Your task to perform on an android device: add a contact in the contacts app Image 0: 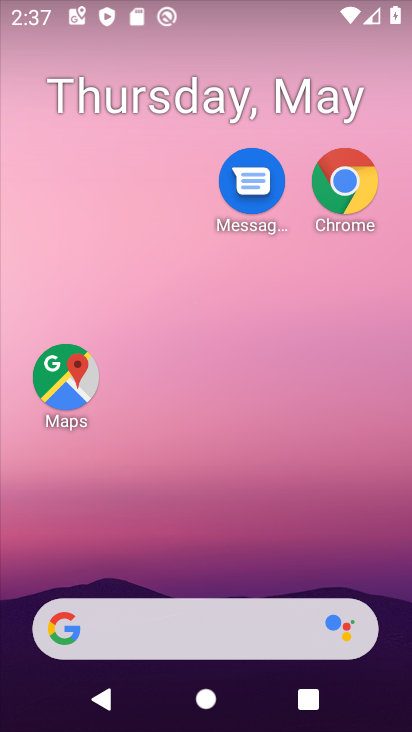
Step 0: drag from (284, 547) to (355, 16)
Your task to perform on an android device: add a contact in the contacts app Image 1: 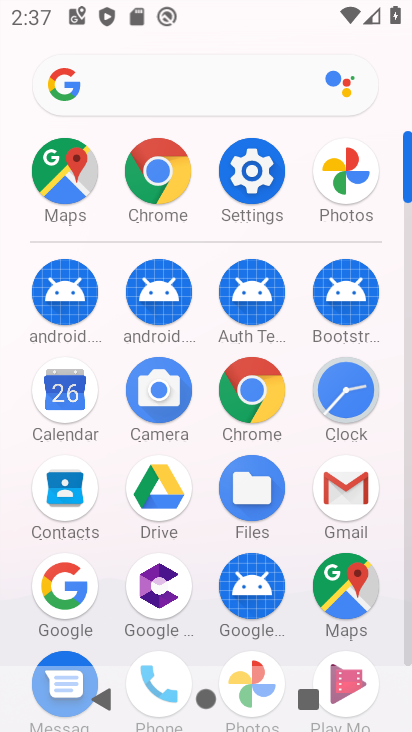
Step 1: click (358, 398)
Your task to perform on an android device: add a contact in the contacts app Image 2: 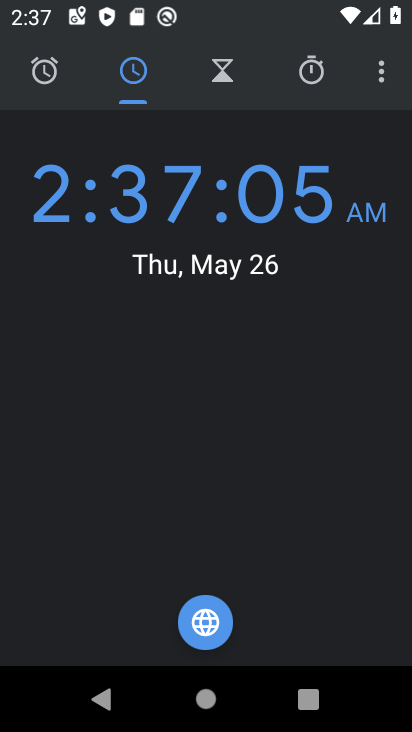
Step 2: press back button
Your task to perform on an android device: add a contact in the contacts app Image 3: 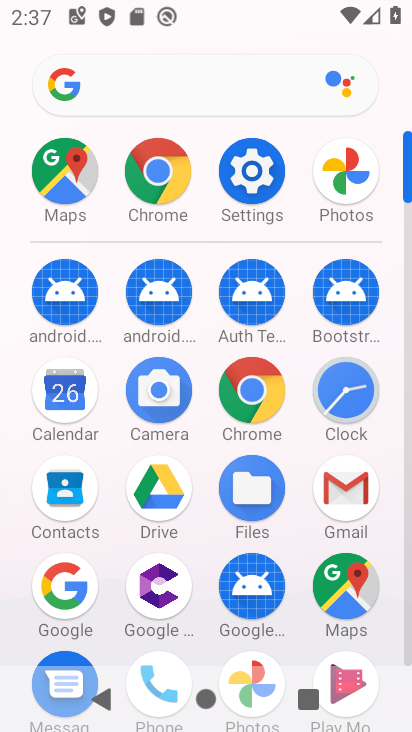
Step 3: click (70, 481)
Your task to perform on an android device: add a contact in the contacts app Image 4: 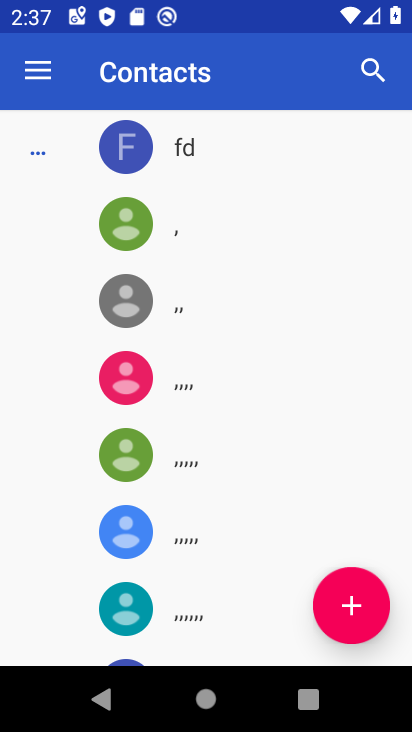
Step 4: click (374, 601)
Your task to perform on an android device: add a contact in the contacts app Image 5: 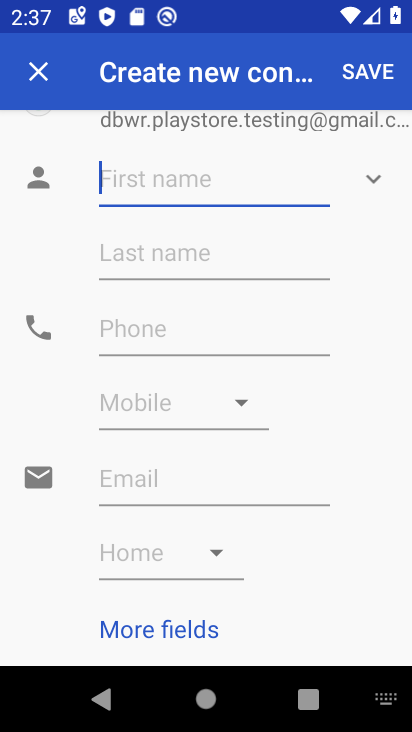
Step 5: type ""
Your task to perform on an android device: add a contact in the contacts app Image 6: 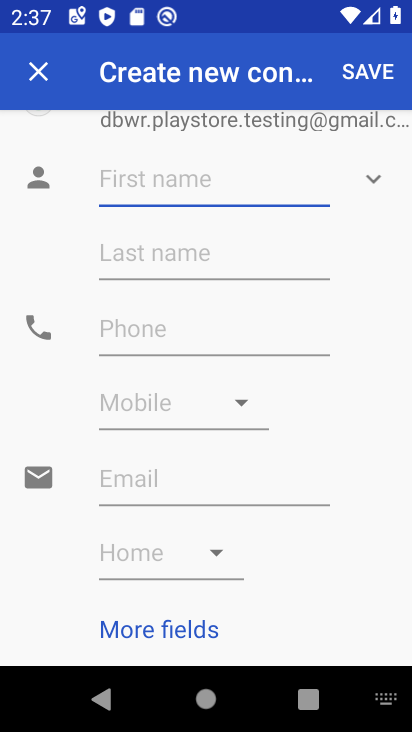
Step 6: type "uijjhhkgig"
Your task to perform on an android device: add a contact in the contacts app Image 7: 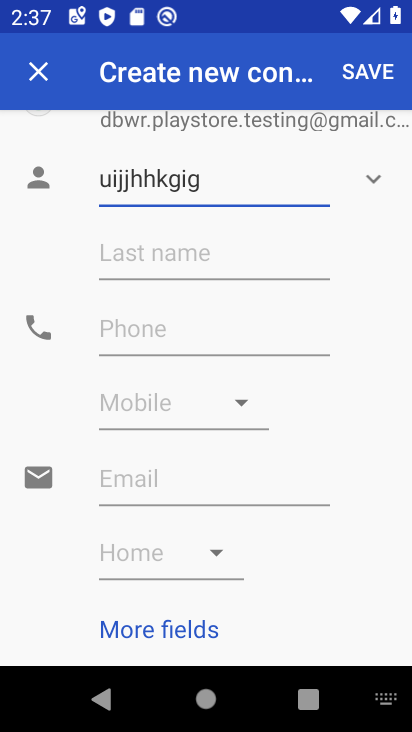
Step 7: click (203, 312)
Your task to perform on an android device: add a contact in the contacts app Image 8: 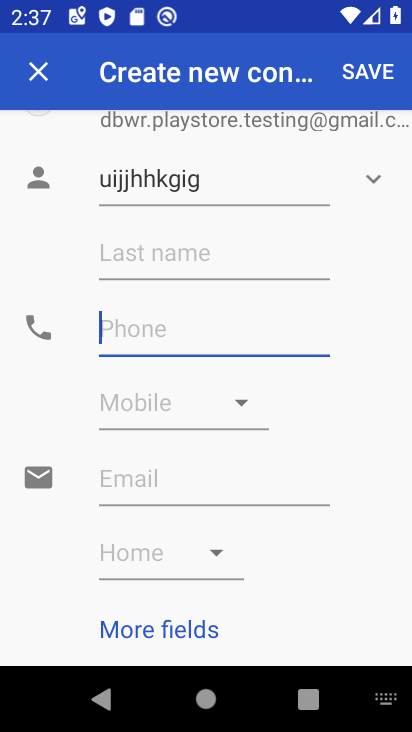
Step 8: type "987667897677"
Your task to perform on an android device: add a contact in the contacts app Image 9: 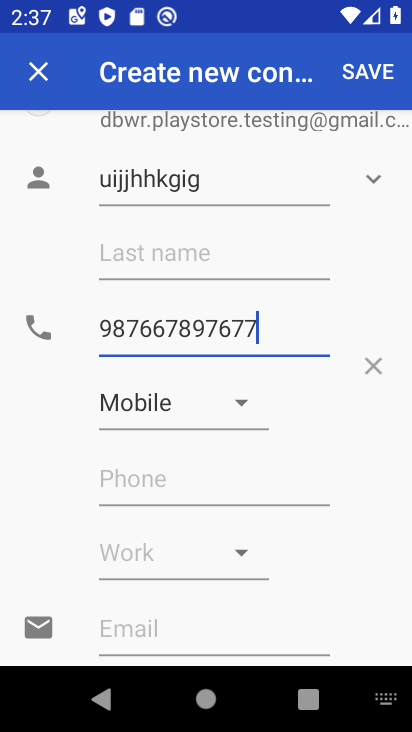
Step 9: click (373, 78)
Your task to perform on an android device: add a contact in the contacts app Image 10: 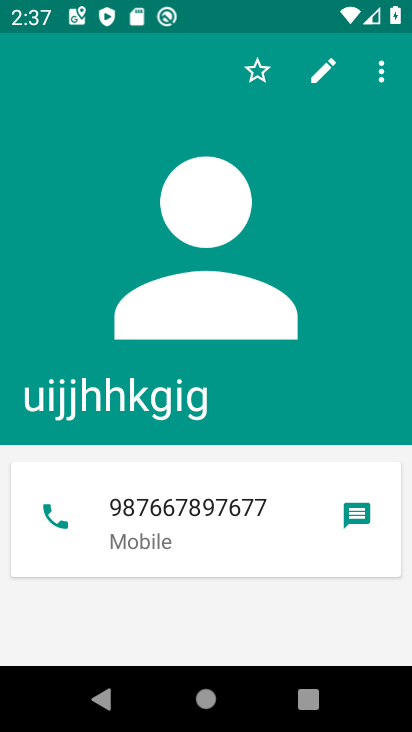
Step 10: task complete